Your task to perform on an android device: What's the news about the US stock market? Image 0: 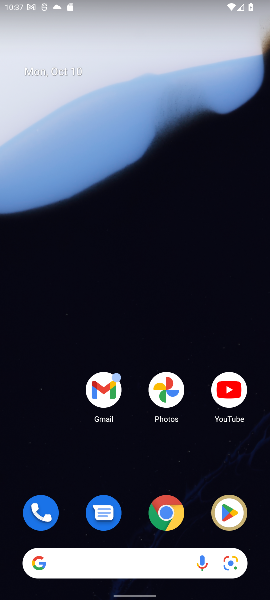
Step 0: drag from (128, 518) to (137, 152)
Your task to perform on an android device: What's the news about the US stock market? Image 1: 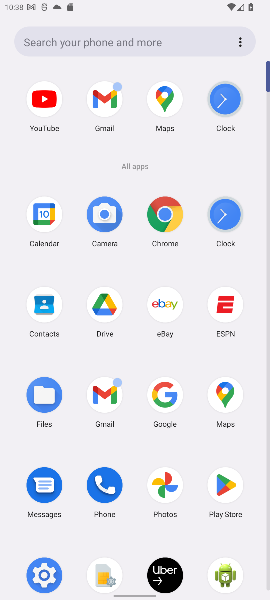
Step 1: click (163, 394)
Your task to perform on an android device: What's the news about the US stock market? Image 2: 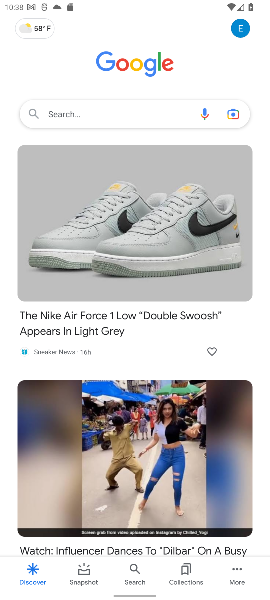
Step 2: click (97, 111)
Your task to perform on an android device: What's the news about the US stock market? Image 3: 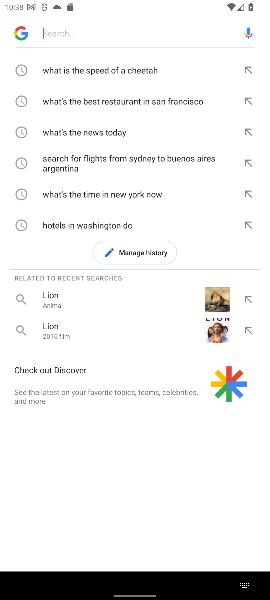
Step 3: type "What's the news about the US stock market?"
Your task to perform on an android device: What's the news about the US stock market? Image 4: 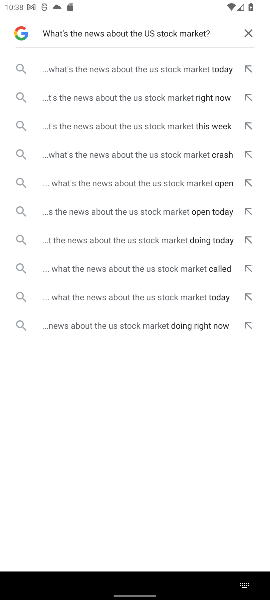
Step 4: click (178, 72)
Your task to perform on an android device: What's the news about the US stock market? Image 5: 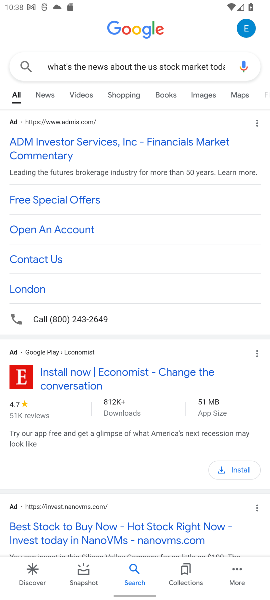
Step 5: task complete